Your task to perform on an android device: set an alarm Image 0: 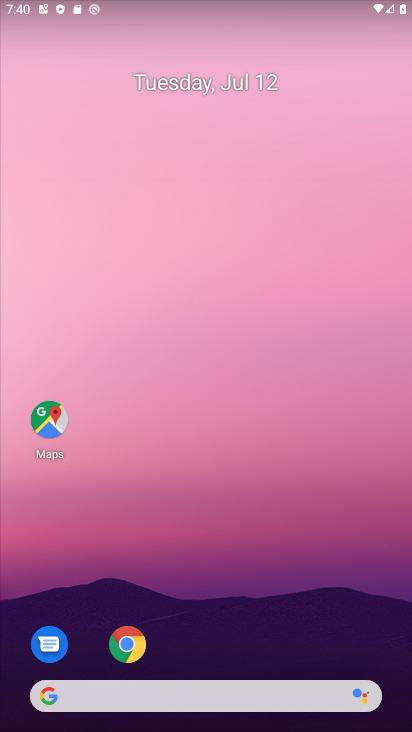
Step 0: drag from (136, 669) to (216, 397)
Your task to perform on an android device: set an alarm Image 1: 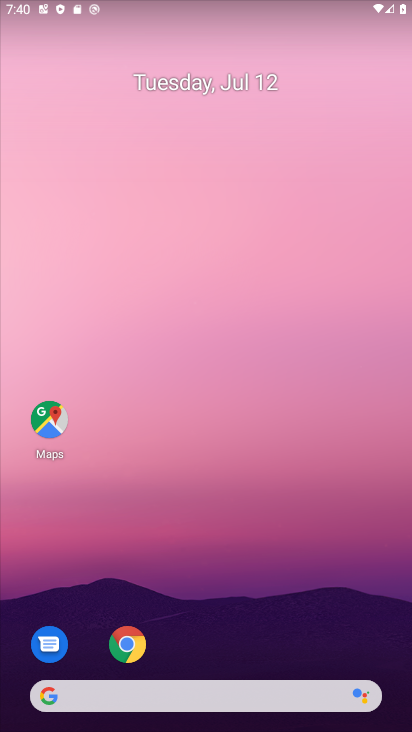
Step 1: drag from (243, 681) to (242, 308)
Your task to perform on an android device: set an alarm Image 2: 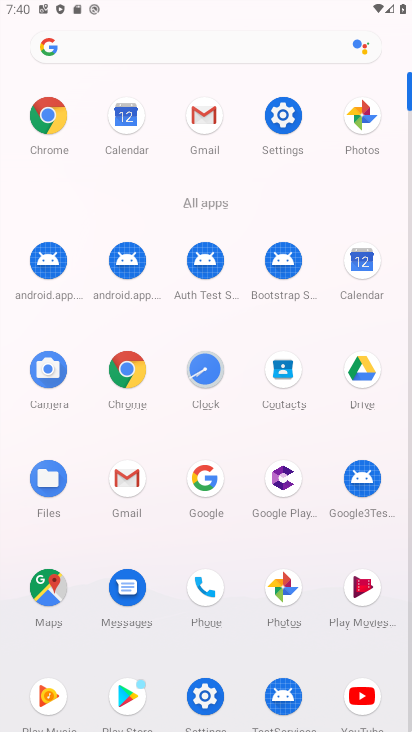
Step 2: click (205, 368)
Your task to perform on an android device: set an alarm Image 3: 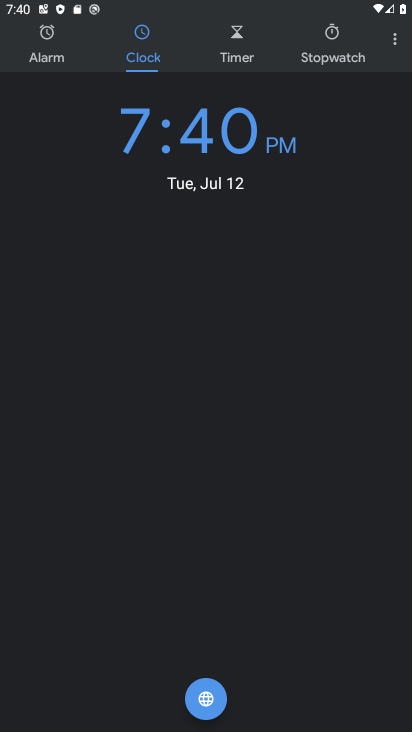
Step 3: click (46, 57)
Your task to perform on an android device: set an alarm Image 4: 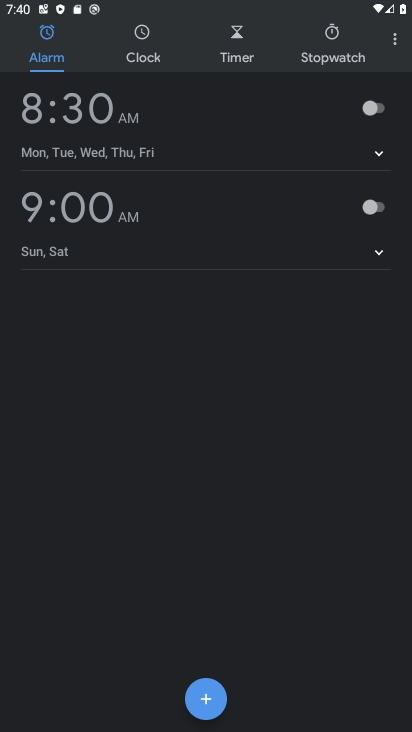
Step 4: click (197, 705)
Your task to perform on an android device: set an alarm Image 5: 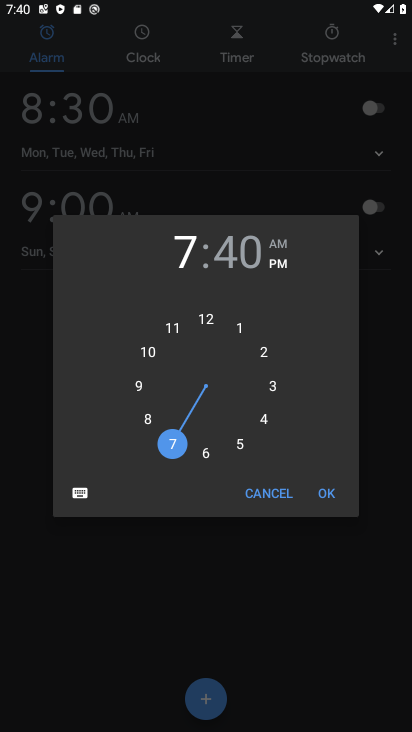
Step 5: click (253, 250)
Your task to perform on an android device: set an alarm Image 6: 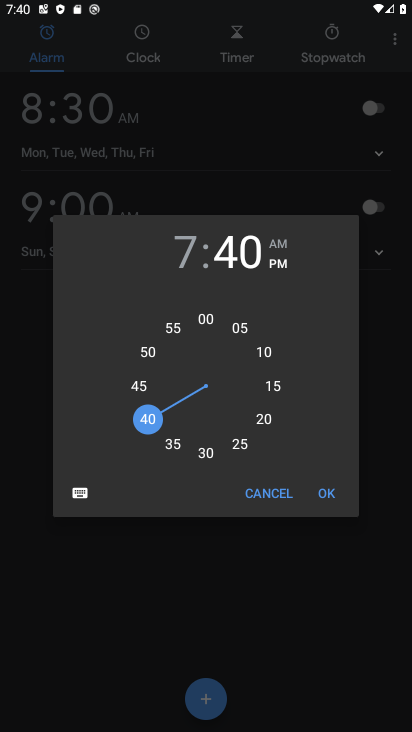
Step 6: click (209, 323)
Your task to perform on an android device: set an alarm Image 7: 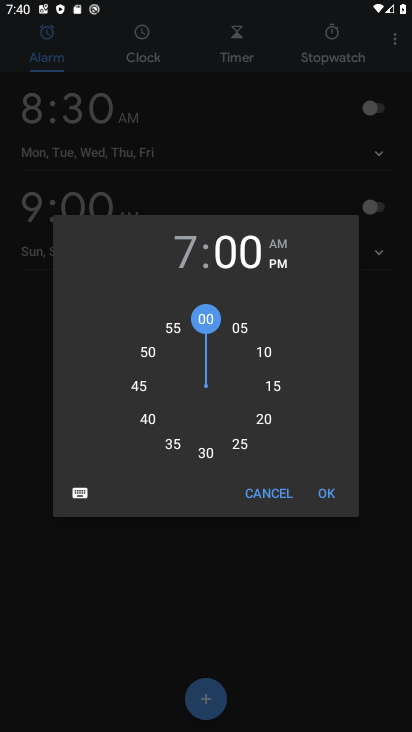
Step 7: click (328, 499)
Your task to perform on an android device: set an alarm Image 8: 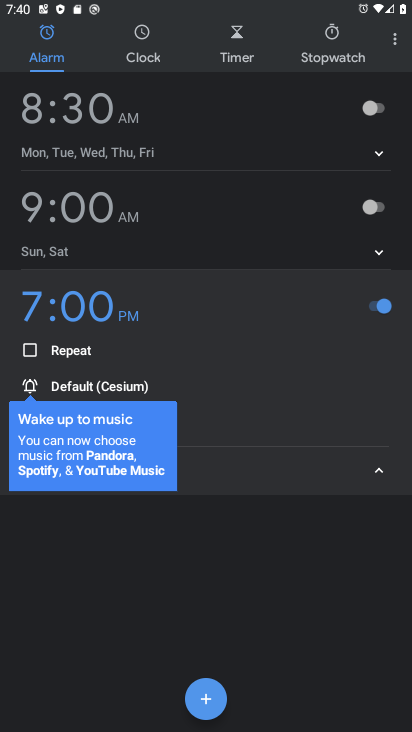
Step 8: task complete